Your task to perform on an android device: make emails show in primary in the gmail app Image 0: 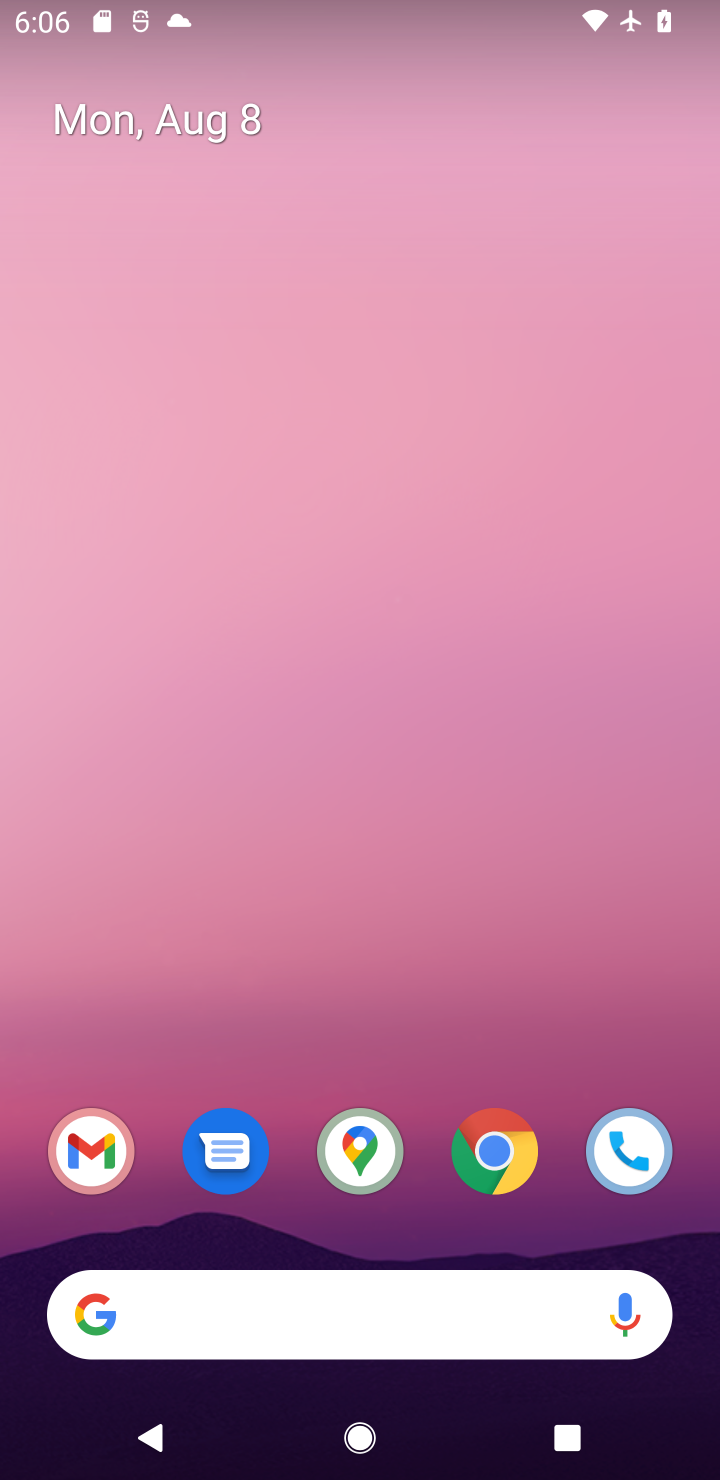
Step 0: drag from (362, 1051) to (365, 71)
Your task to perform on an android device: make emails show in primary in the gmail app Image 1: 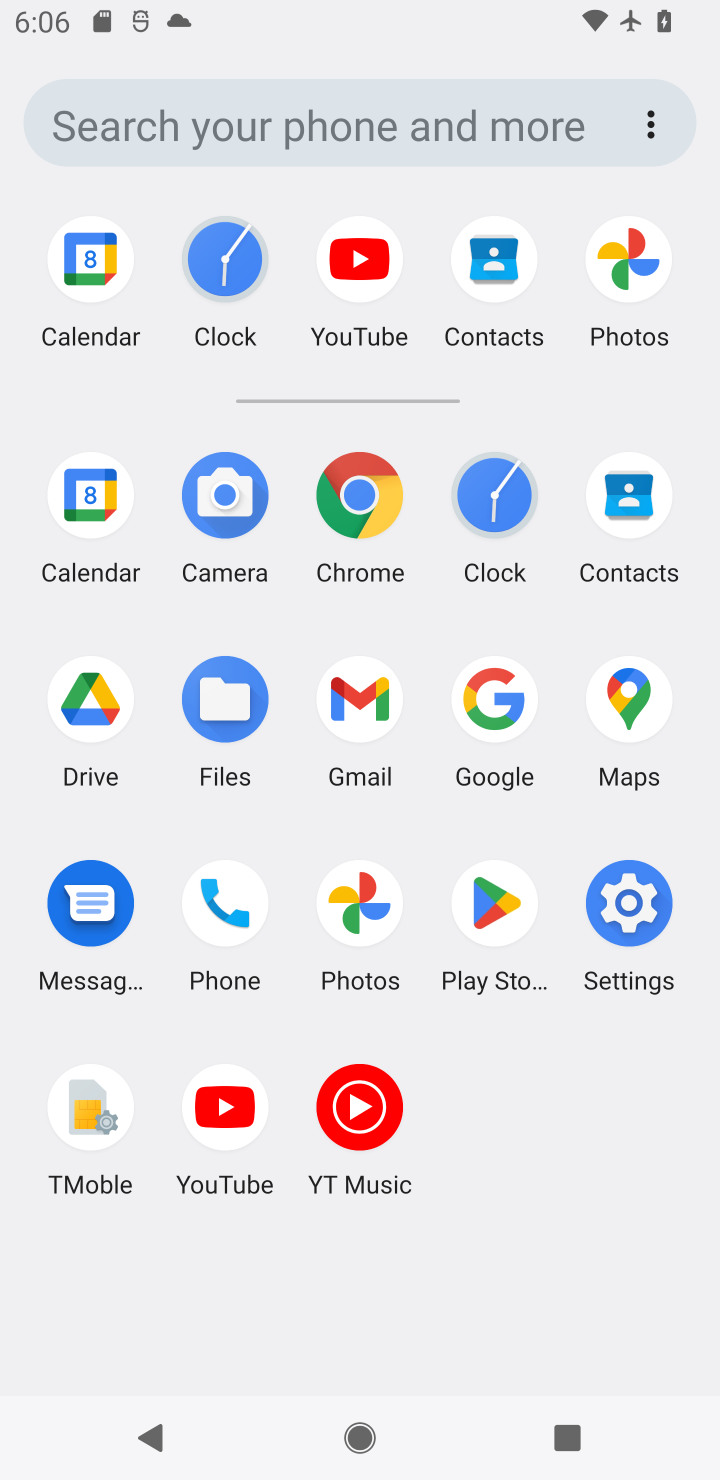
Step 1: click (363, 710)
Your task to perform on an android device: make emails show in primary in the gmail app Image 2: 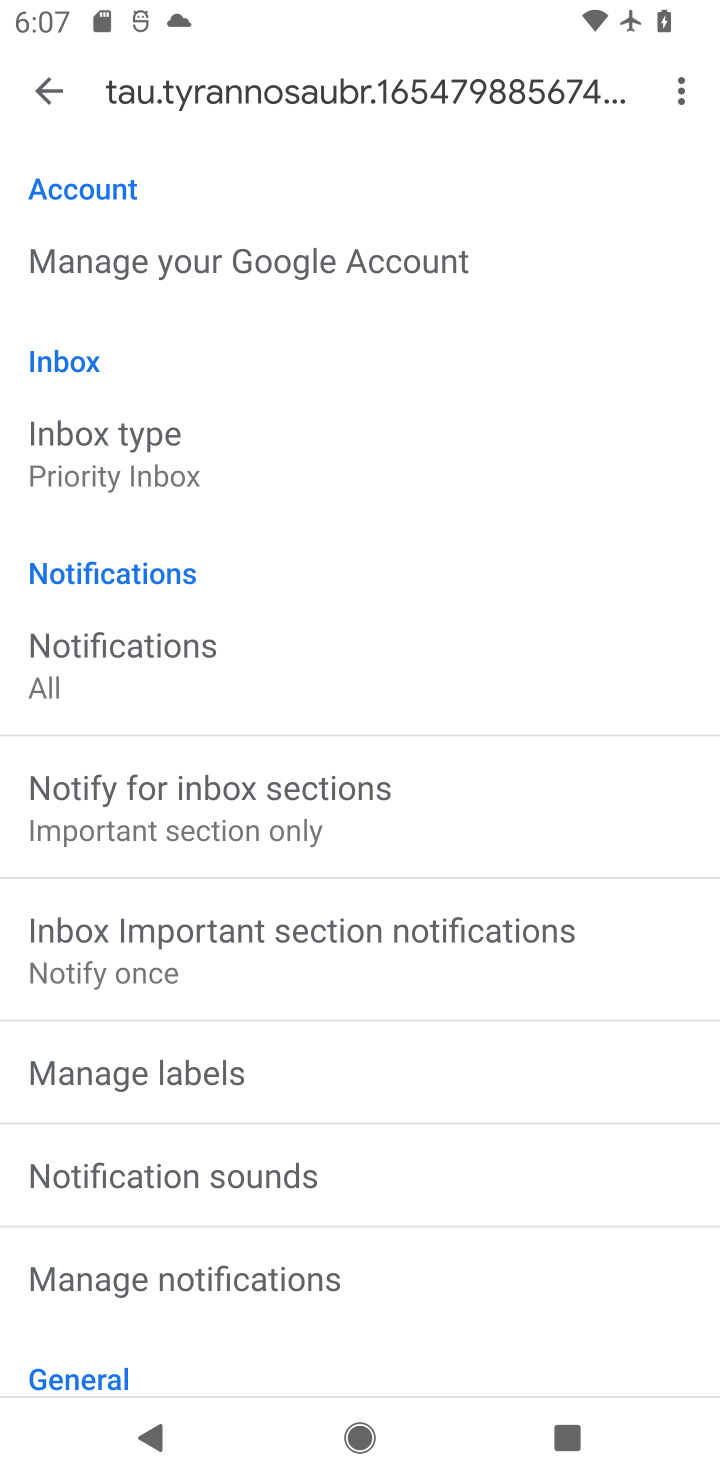
Step 2: click (255, 463)
Your task to perform on an android device: make emails show in primary in the gmail app Image 3: 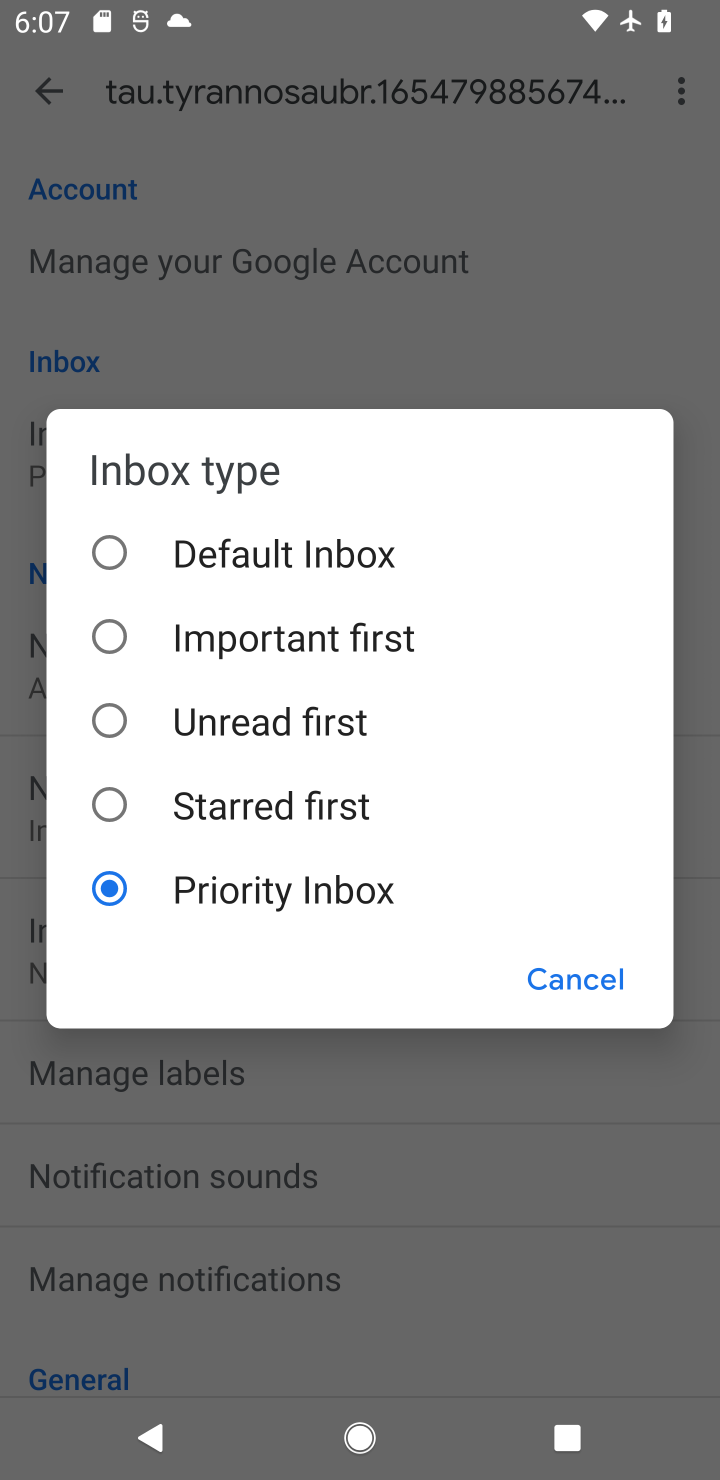
Step 3: click (171, 558)
Your task to perform on an android device: make emails show in primary in the gmail app Image 4: 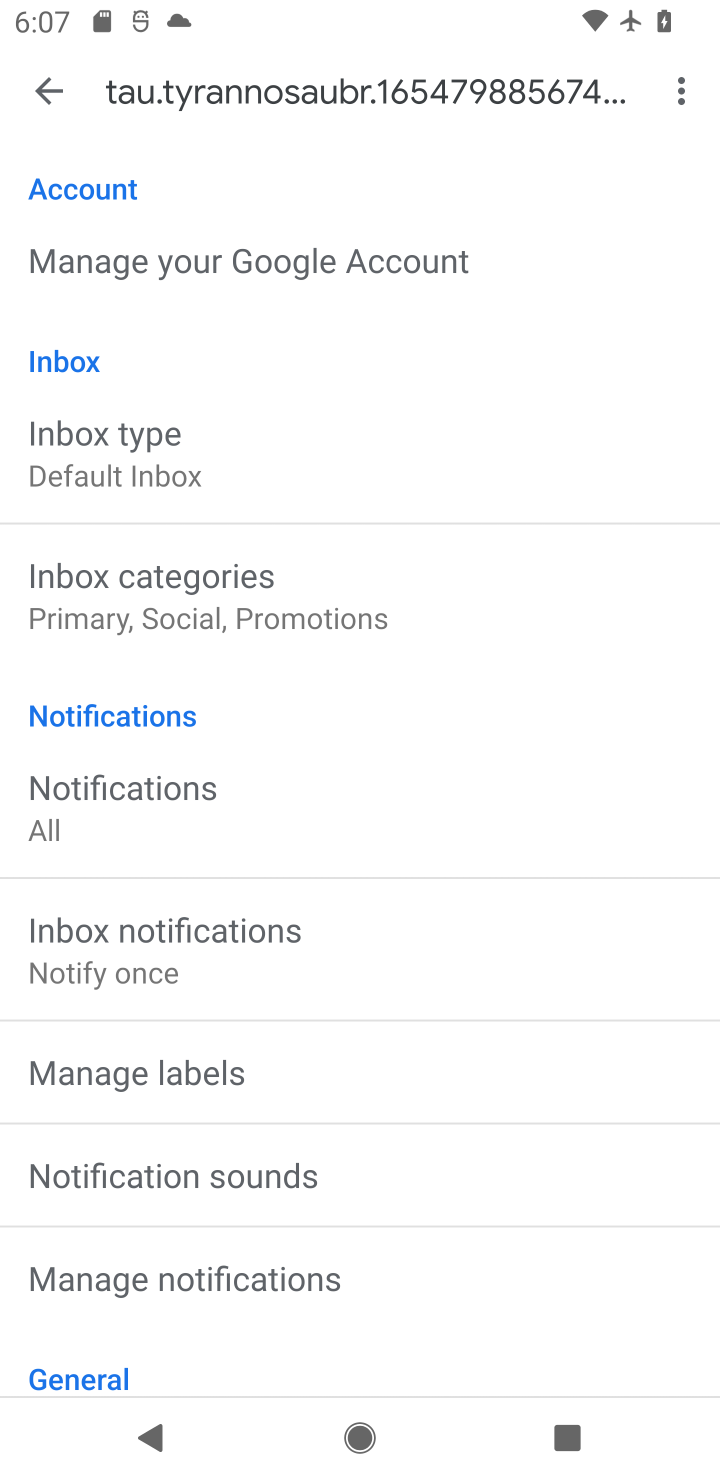
Step 4: task complete